Your task to perform on an android device: open chrome and create a bookmark for the current page Image 0: 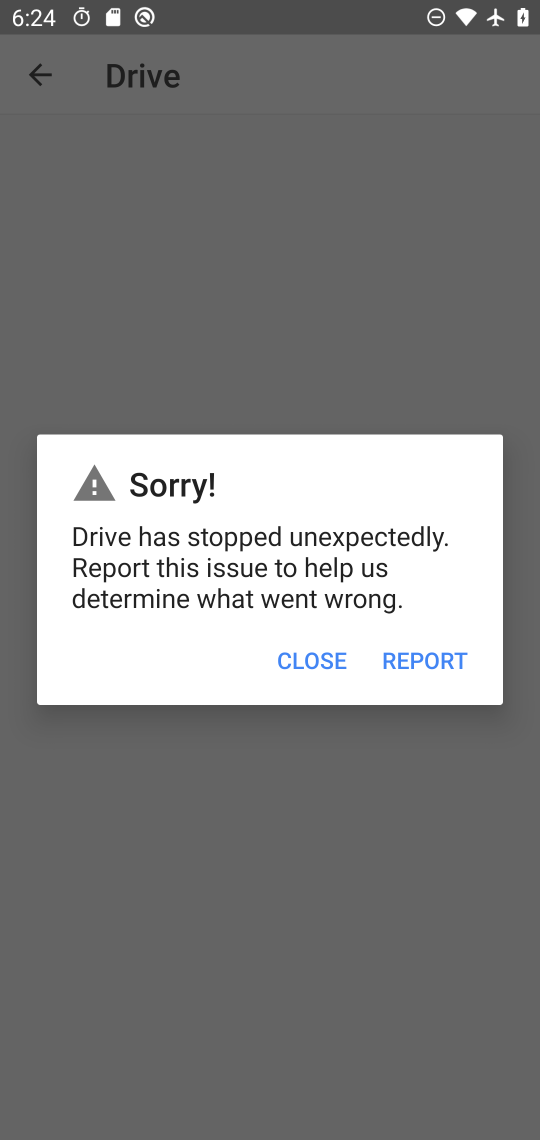
Step 0: press home button
Your task to perform on an android device: open chrome and create a bookmark for the current page Image 1: 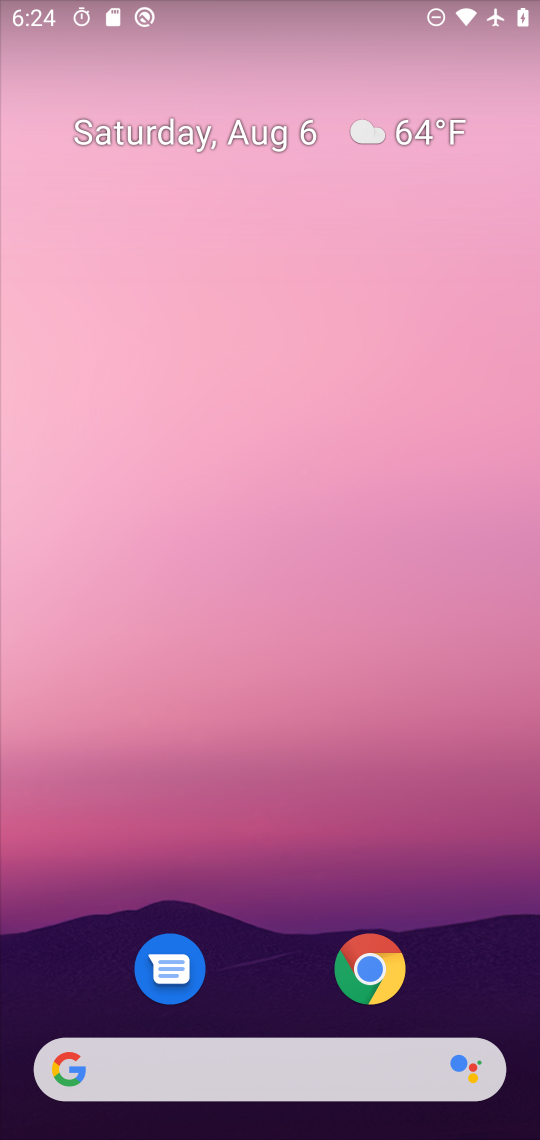
Step 1: drag from (282, 1020) to (328, 175)
Your task to perform on an android device: open chrome and create a bookmark for the current page Image 2: 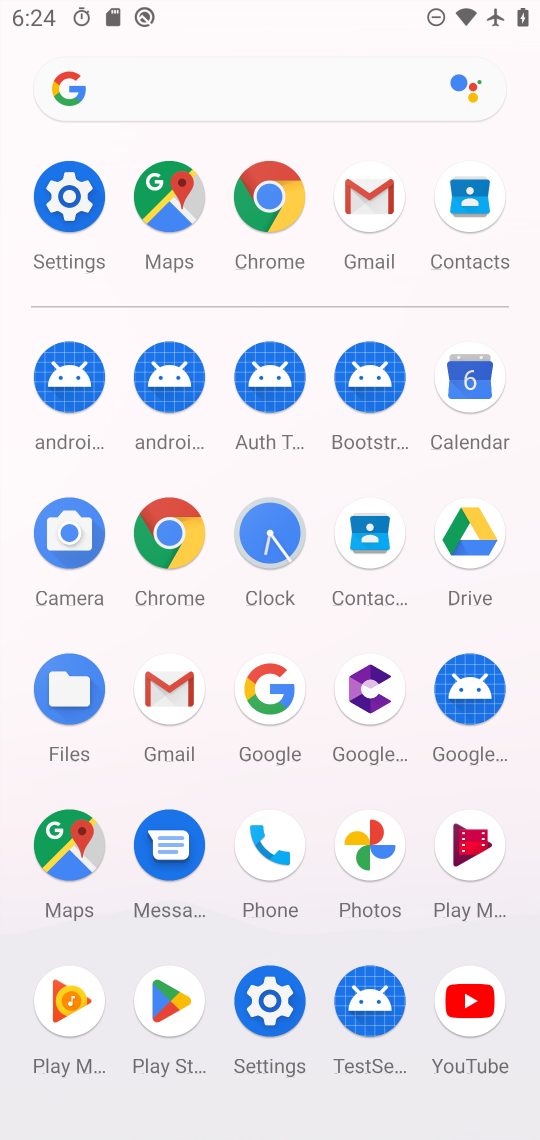
Step 2: click (285, 192)
Your task to perform on an android device: open chrome and create a bookmark for the current page Image 3: 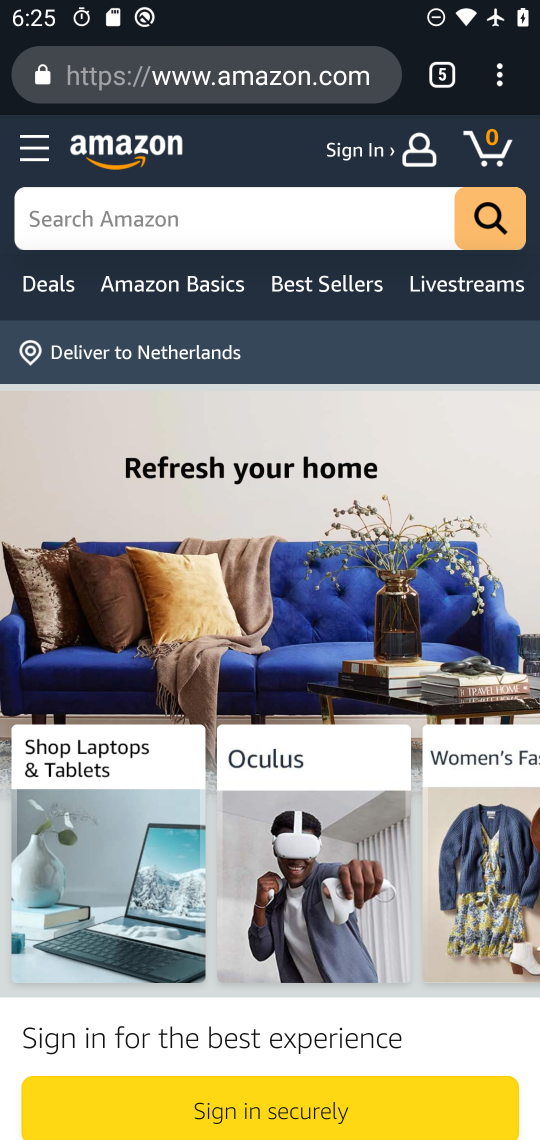
Step 3: task complete